Your task to perform on an android device: toggle notification dots Image 0: 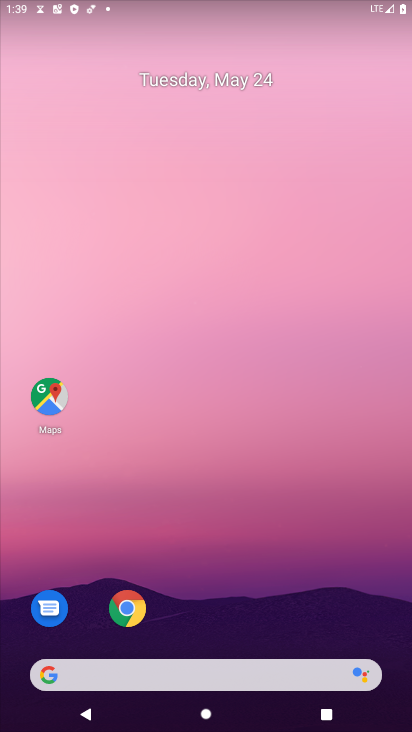
Step 0: drag from (342, 622) to (289, 70)
Your task to perform on an android device: toggle notification dots Image 1: 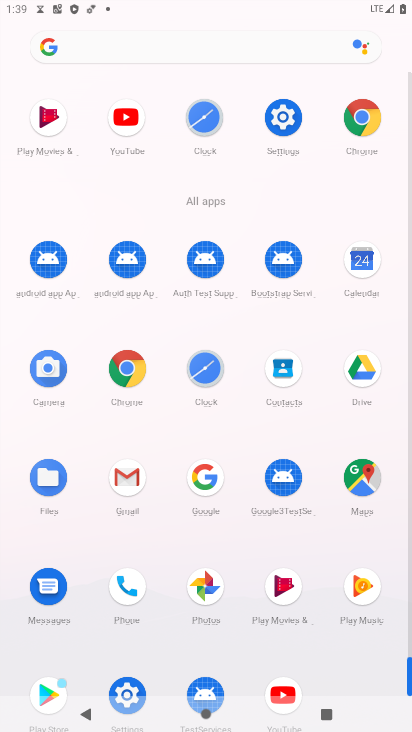
Step 1: click (287, 117)
Your task to perform on an android device: toggle notification dots Image 2: 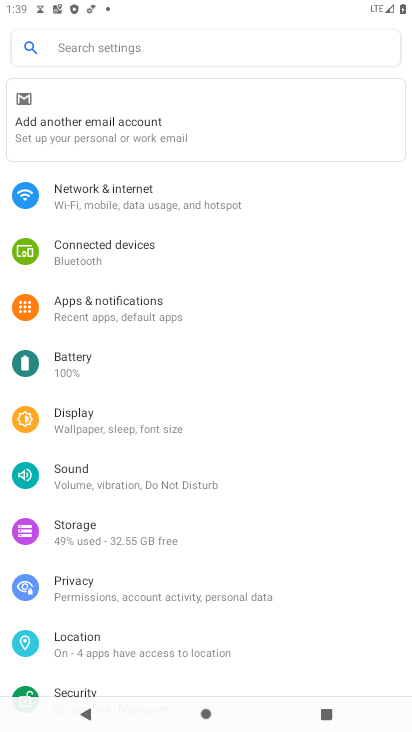
Step 2: click (187, 316)
Your task to perform on an android device: toggle notification dots Image 3: 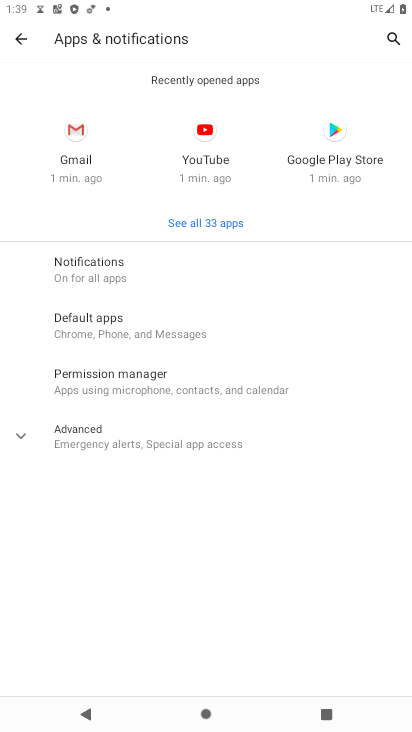
Step 3: click (170, 266)
Your task to perform on an android device: toggle notification dots Image 4: 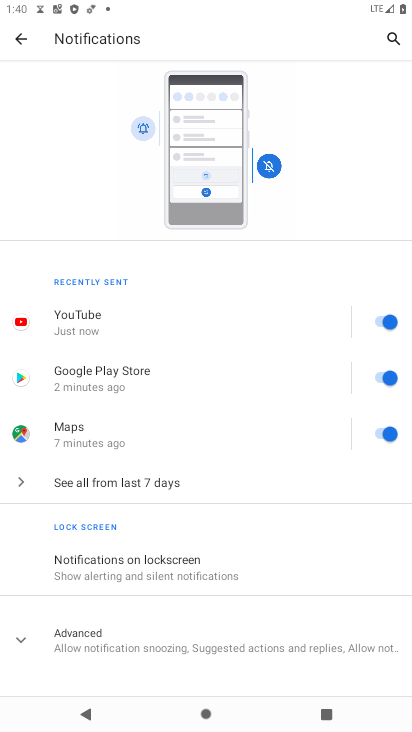
Step 4: click (230, 637)
Your task to perform on an android device: toggle notification dots Image 5: 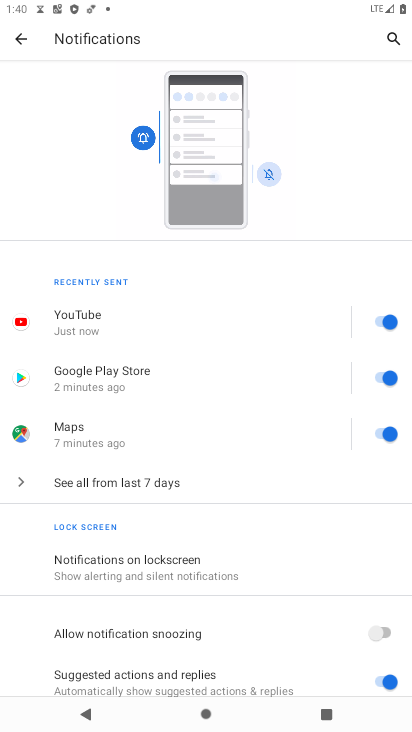
Step 5: drag from (254, 673) to (241, 402)
Your task to perform on an android device: toggle notification dots Image 6: 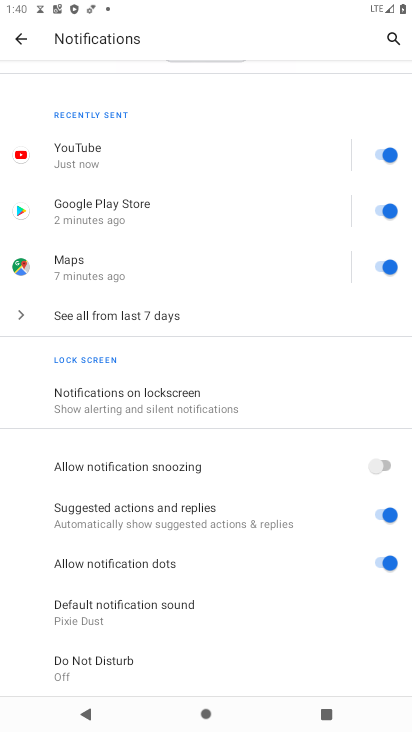
Step 6: click (388, 562)
Your task to perform on an android device: toggle notification dots Image 7: 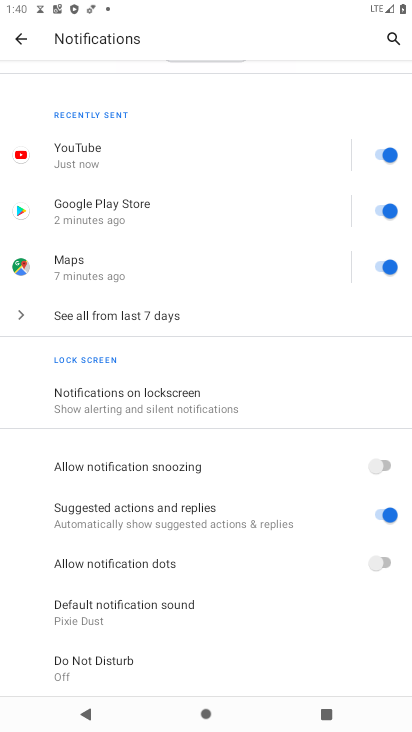
Step 7: task complete